Your task to perform on an android device: Open settings Image 0: 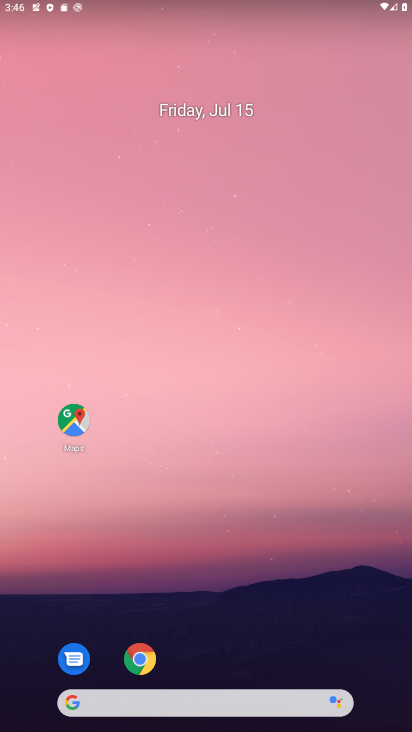
Step 0: drag from (187, 582) to (154, 172)
Your task to perform on an android device: Open settings Image 1: 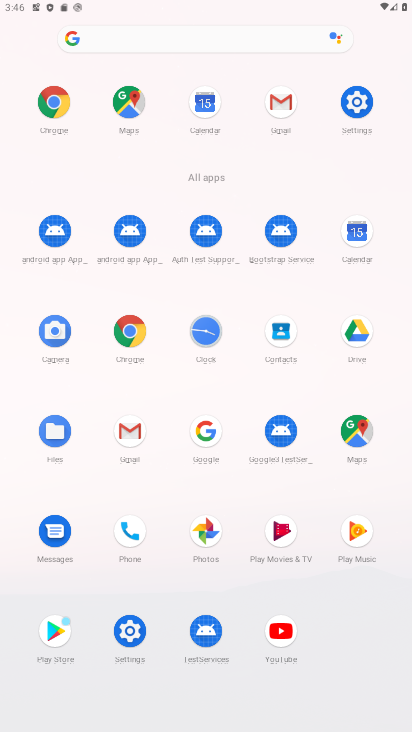
Step 1: click (360, 102)
Your task to perform on an android device: Open settings Image 2: 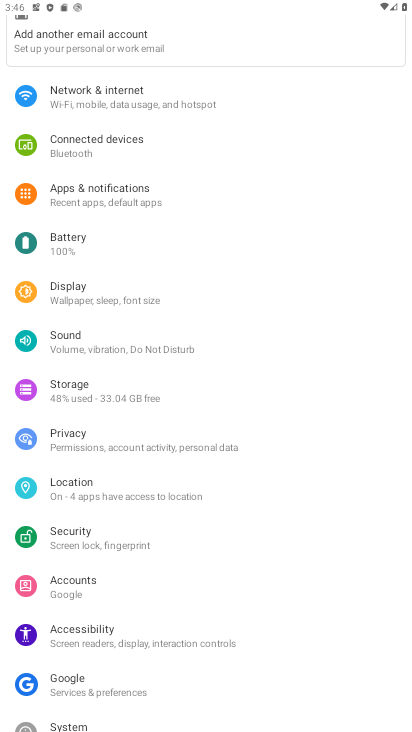
Step 2: task complete